Your task to perform on an android device: turn pop-ups on in chrome Image 0: 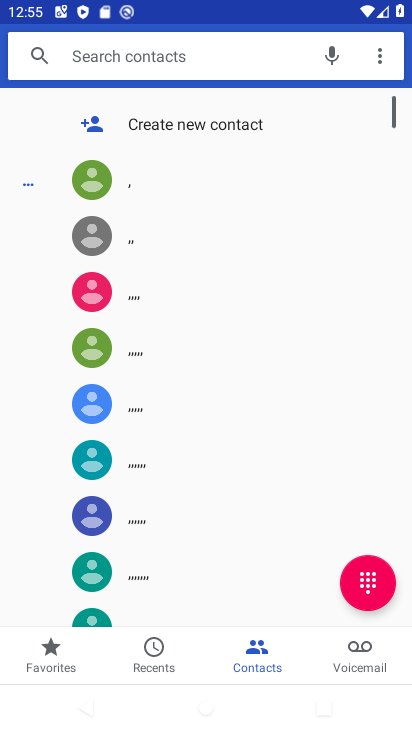
Step 0: press home button
Your task to perform on an android device: turn pop-ups on in chrome Image 1: 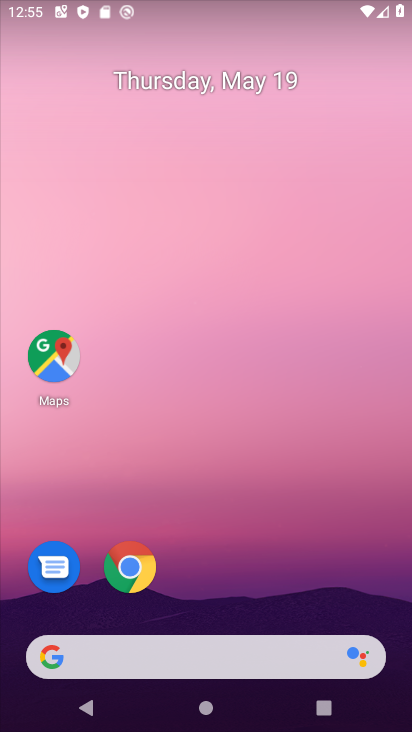
Step 1: drag from (70, 522) to (237, 195)
Your task to perform on an android device: turn pop-ups on in chrome Image 2: 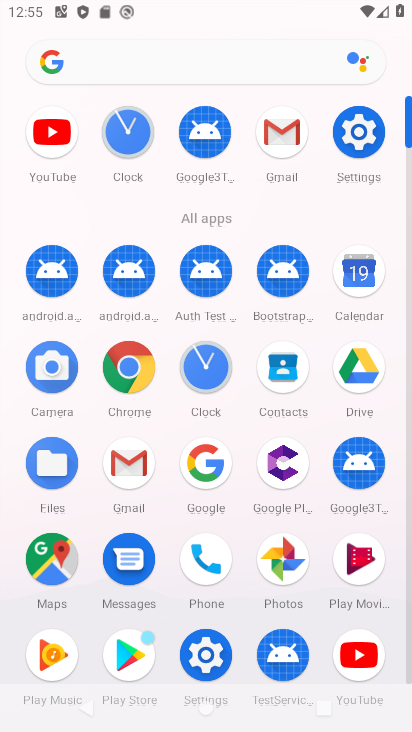
Step 2: click (130, 366)
Your task to perform on an android device: turn pop-ups on in chrome Image 3: 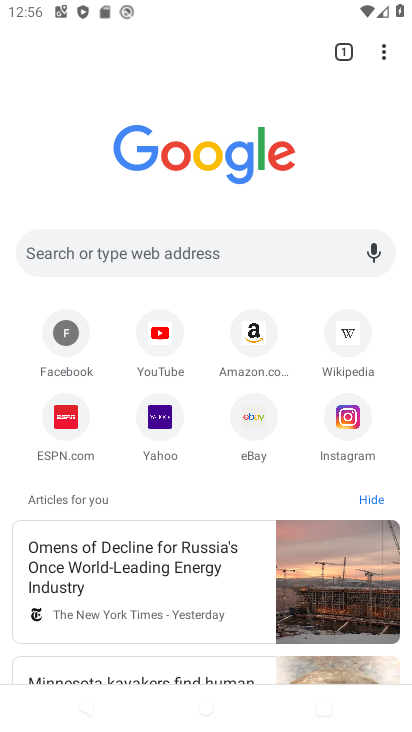
Step 3: click (387, 50)
Your task to perform on an android device: turn pop-ups on in chrome Image 4: 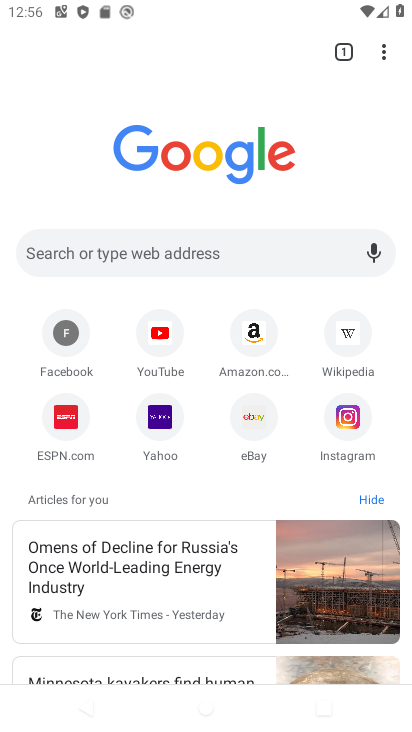
Step 4: click (387, 50)
Your task to perform on an android device: turn pop-ups on in chrome Image 5: 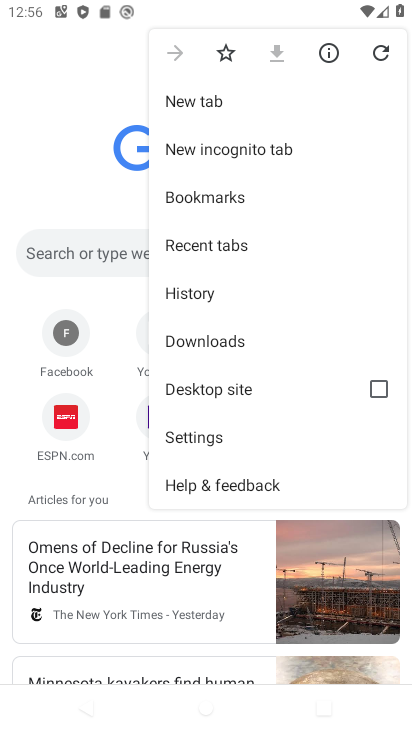
Step 5: click (206, 427)
Your task to perform on an android device: turn pop-ups on in chrome Image 6: 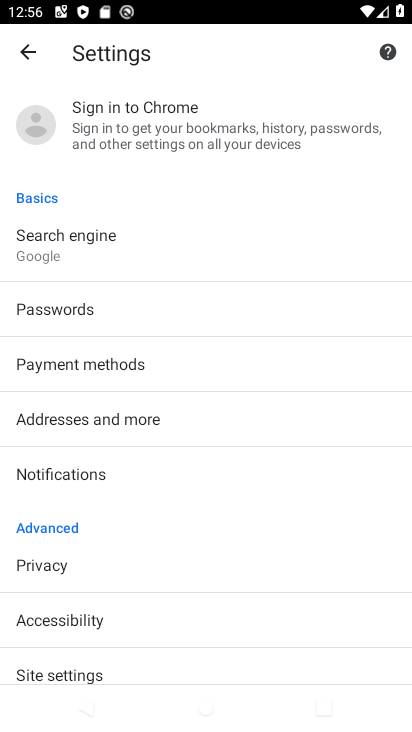
Step 6: drag from (36, 505) to (161, 207)
Your task to perform on an android device: turn pop-ups on in chrome Image 7: 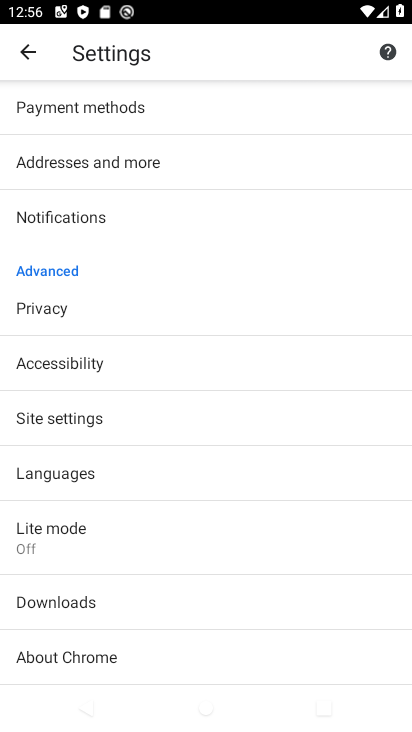
Step 7: click (36, 419)
Your task to perform on an android device: turn pop-ups on in chrome Image 8: 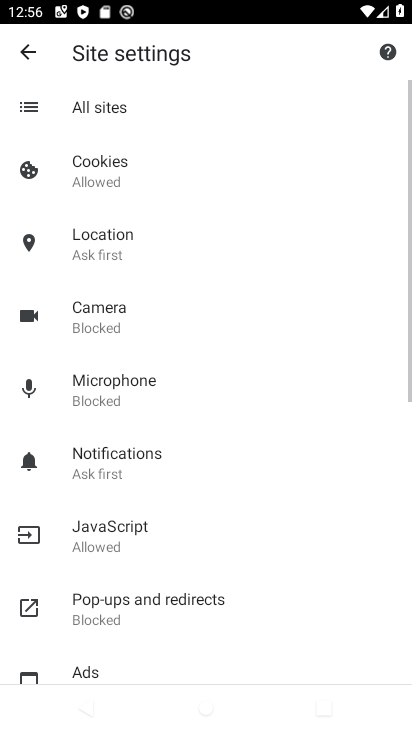
Step 8: drag from (19, 434) to (176, 241)
Your task to perform on an android device: turn pop-ups on in chrome Image 9: 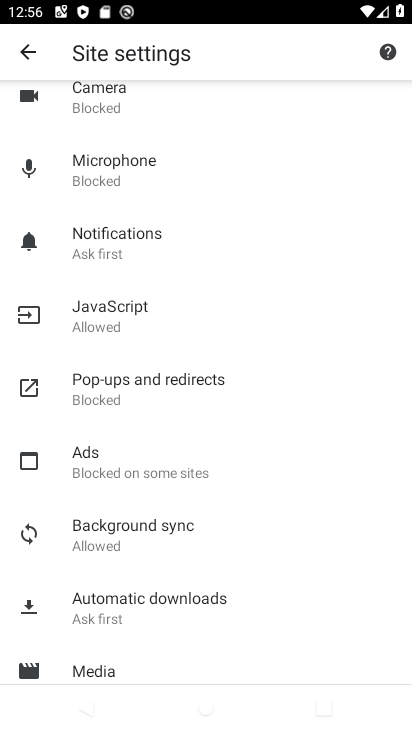
Step 9: click (163, 381)
Your task to perform on an android device: turn pop-ups on in chrome Image 10: 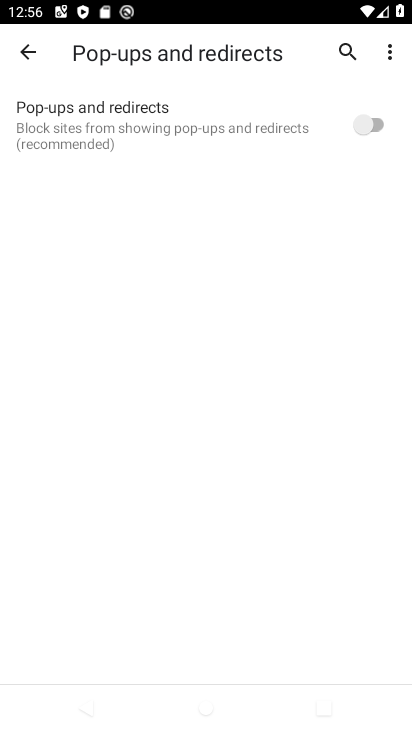
Step 10: click (365, 133)
Your task to perform on an android device: turn pop-ups on in chrome Image 11: 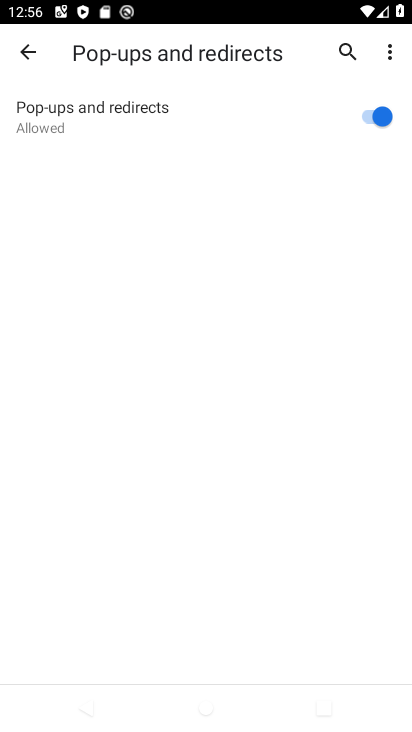
Step 11: task complete